Your task to perform on an android device: check battery use Image 0: 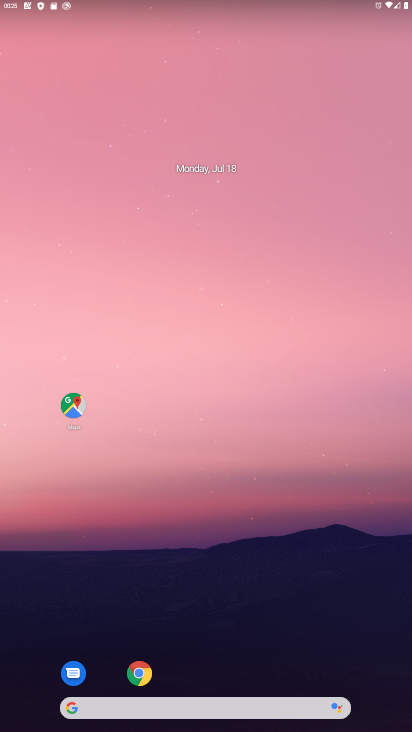
Step 0: drag from (295, 653) to (205, 99)
Your task to perform on an android device: check battery use Image 1: 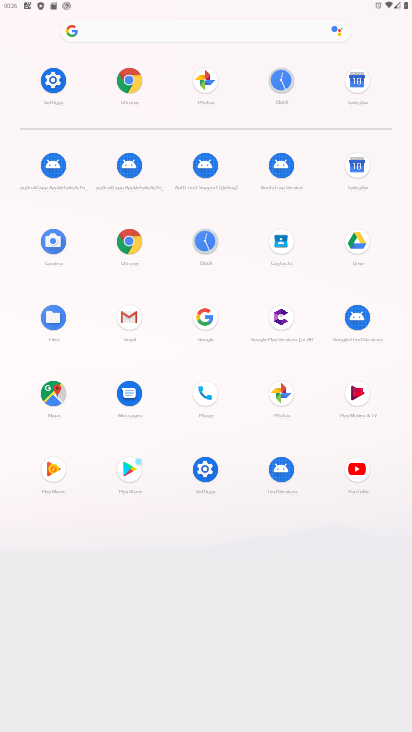
Step 1: click (56, 103)
Your task to perform on an android device: check battery use Image 2: 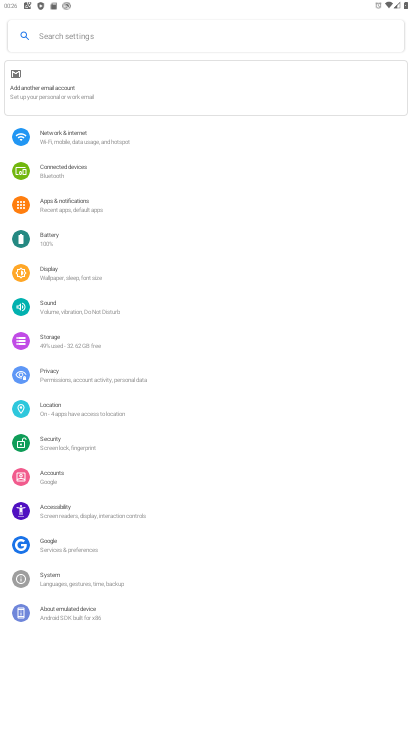
Step 2: click (98, 236)
Your task to perform on an android device: check battery use Image 3: 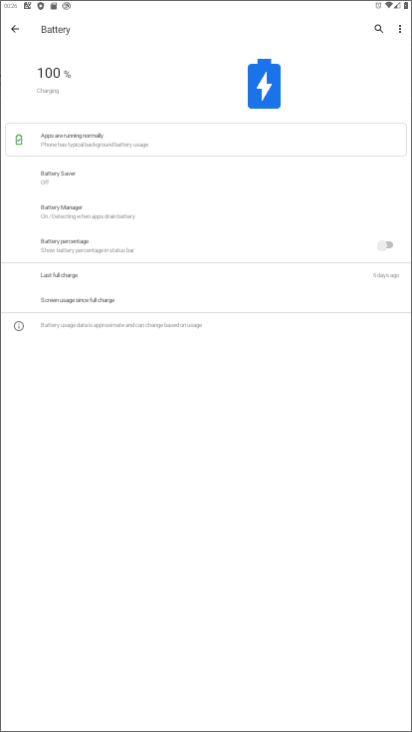
Step 3: task complete